Your task to perform on an android device: toggle improve location accuracy Image 0: 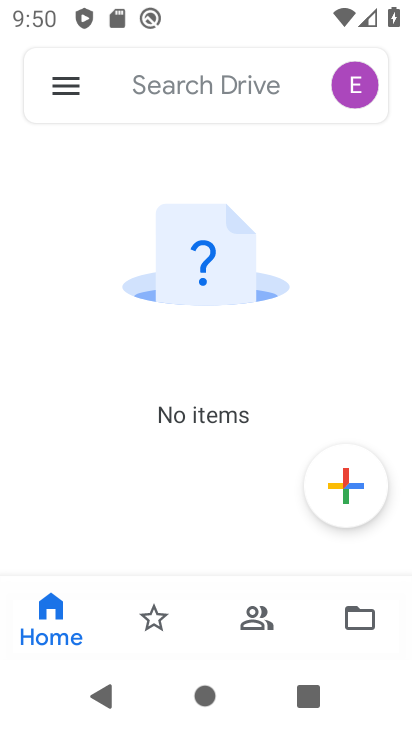
Step 0: press back button
Your task to perform on an android device: toggle improve location accuracy Image 1: 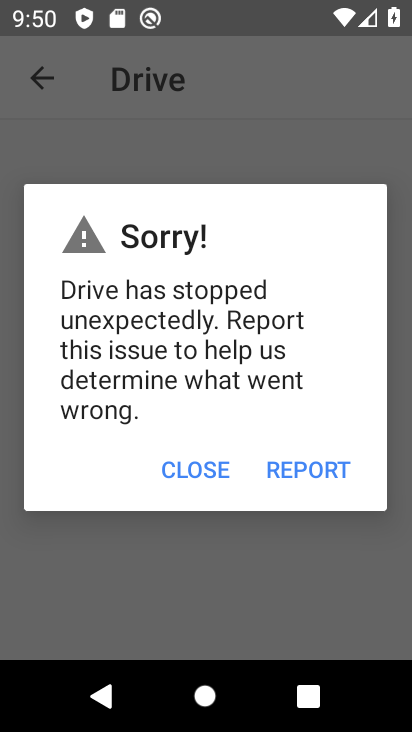
Step 1: click (188, 464)
Your task to perform on an android device: toggle improve location accuracy Image 2: 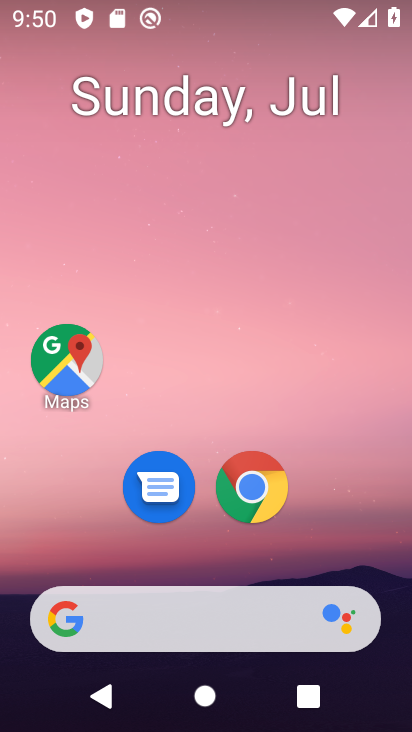
Step 2: drag from (197, 563) to (226, 1)
Your task to perform on an android device: toggle improve location accuracy Image 3: 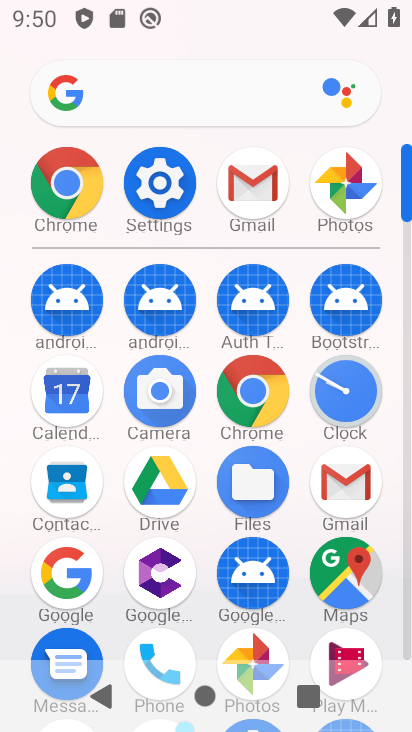
Step 3: click (151, 192)
Your task to perform on an android device: toggle improve location accuracy Image 4: 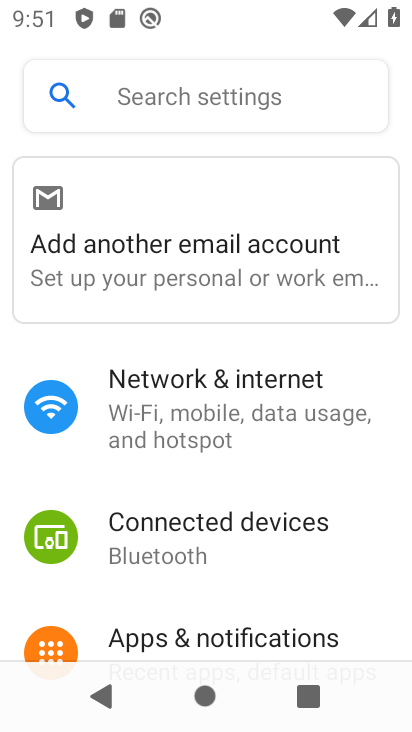
Step 4: drag from (222, 581) to (317, 42)
Your task to perform on an android device: toggle improve location accuracy Image 5: 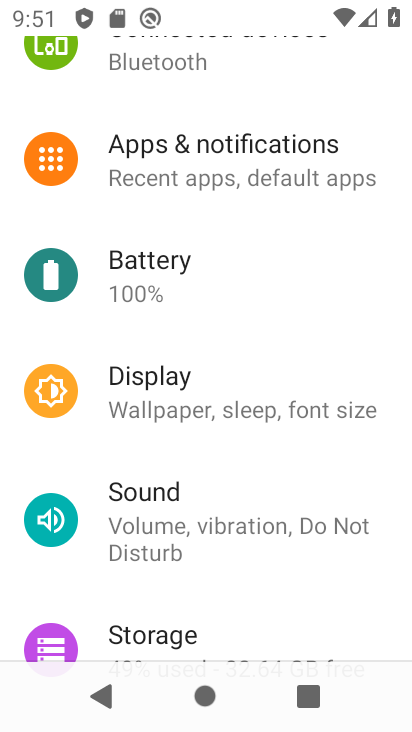
Step 5: drag from (232, 545) to (285, 144)
Your task to perform on an android device: toggle improve location accuracy Image 6: 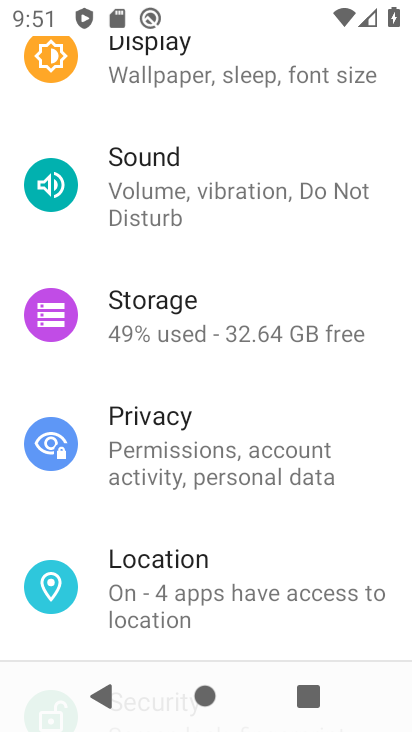
Step 6: click (173, 597)
Your task to perform on an android device: toggle improve location accuracy Image 7: 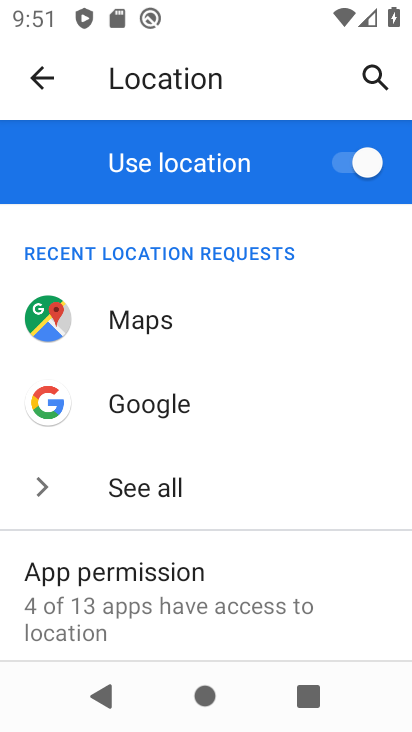
Step 7: drag from (172, 601) to (213, 171)
Your task to perform on an android device: toggle improve location accuracy Image 8: 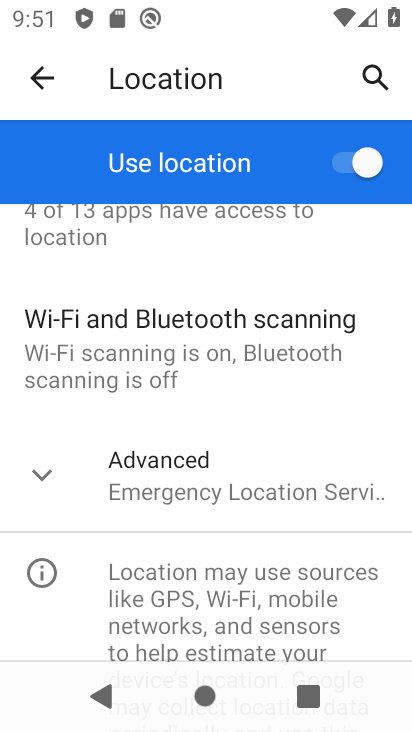
Step 8: click (228, 493)
Your task to perform on an android device: toggle improve location accuracy Image 9: 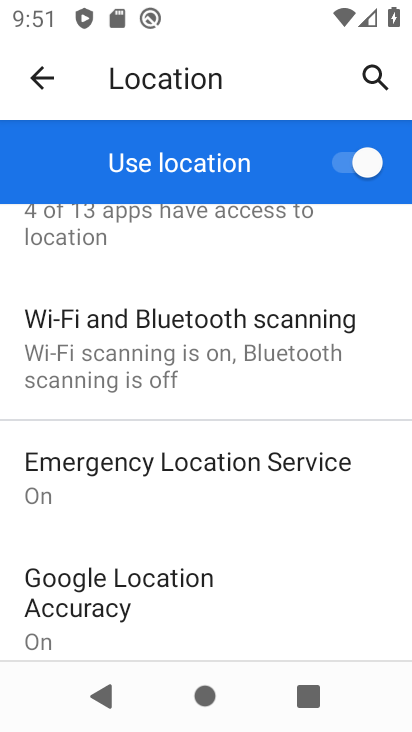
Step 9: drag from (194, 594) to (209, 415)
Your task to perform on an android device: toggle improve location accuracy Image 10: 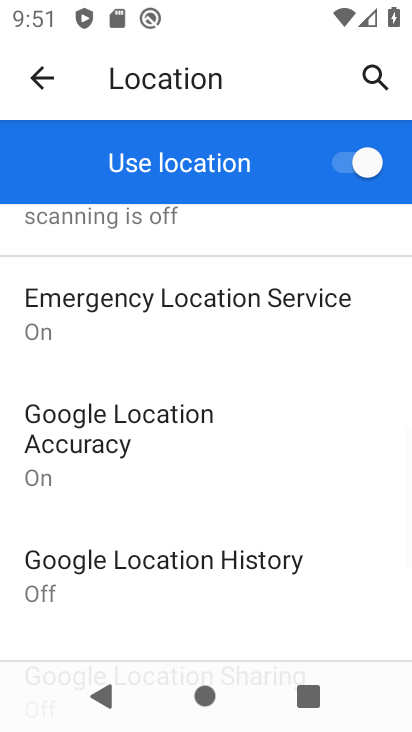
Step 10: click (162, 432)
Your task to perform on an android device: toggle improve location accuracy Image 11: 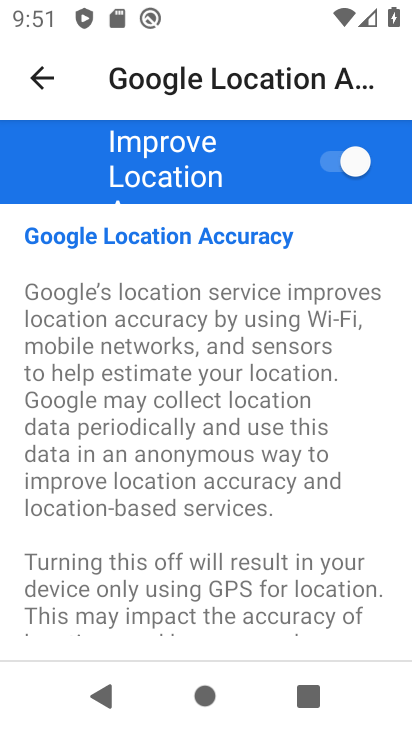
Step 11: click (353, 156)
Your task to perform on an android device: toggle improve location accuracy Image 12: 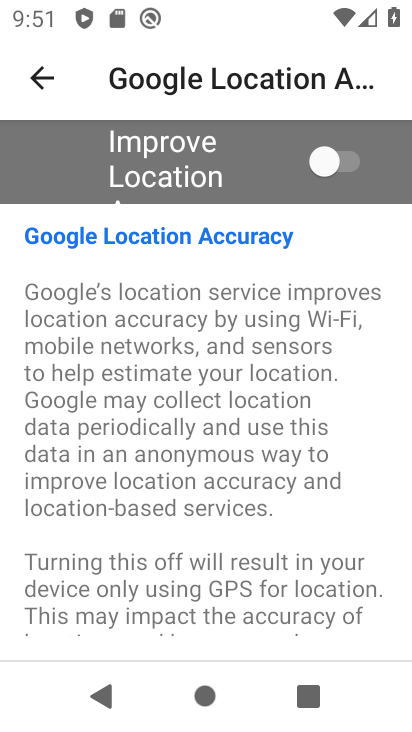
Step 12: task complete